Your task to perform on an android device: Open Chrome and go to settings Image 0: 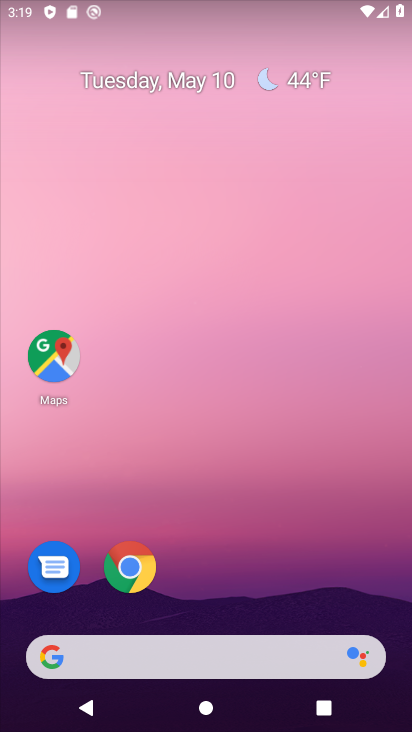
Step 0: click (127, 566)
Your task to perform on an android device: Open Chrome and go to settings Image 1: 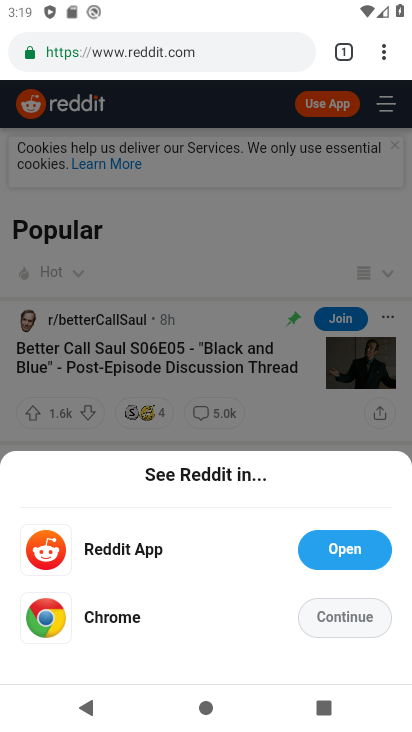
Step 1: click (382, 53)
Your task to perform on an android device: Open Chrome and go to settings Image 2: 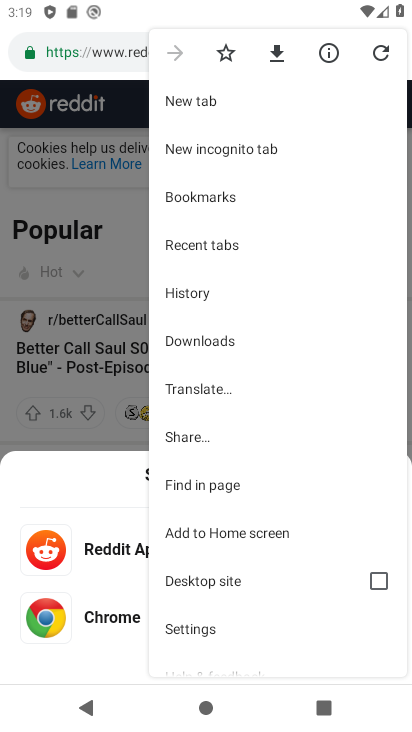
Step 2: click (194, 626)
Your task to perform on an android device: Open Chrome and go to settings Image 3: 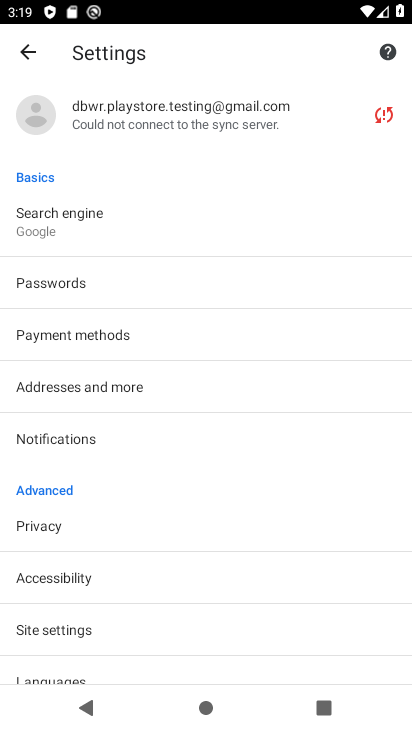
Step 3: task complete